Your task to perform on an android device: turn on the 24-hour format for clock Image 0: 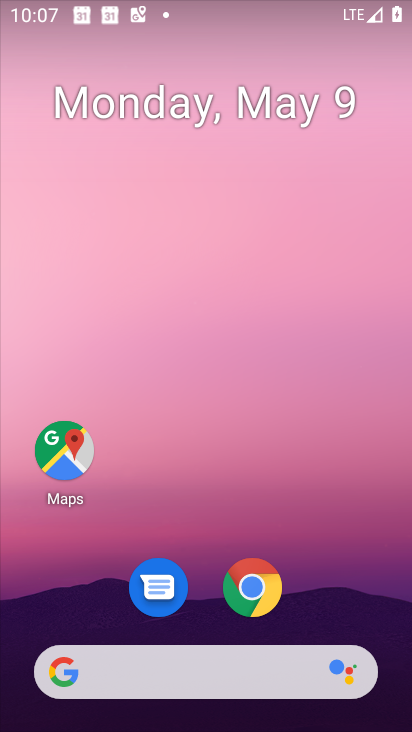
Step 0: drag from (201, 625) to (408, 99)
Your task to perform on an android device: turn on the 24-hour format for clock Image 1: 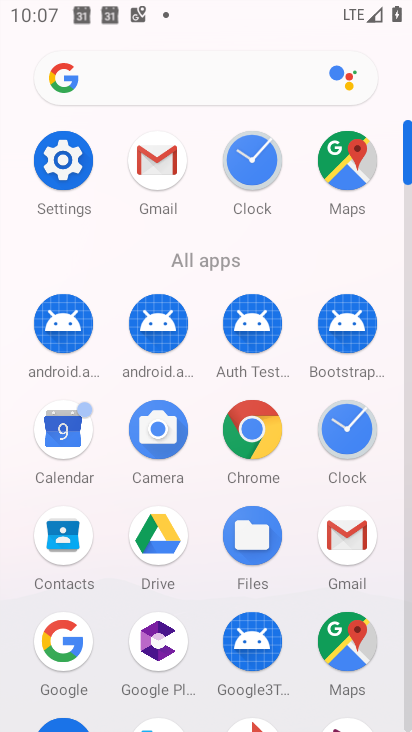
Step 1: click (241, 160)
Your task to perform on an android device: turn on the 24-hour format for clock Image 2: 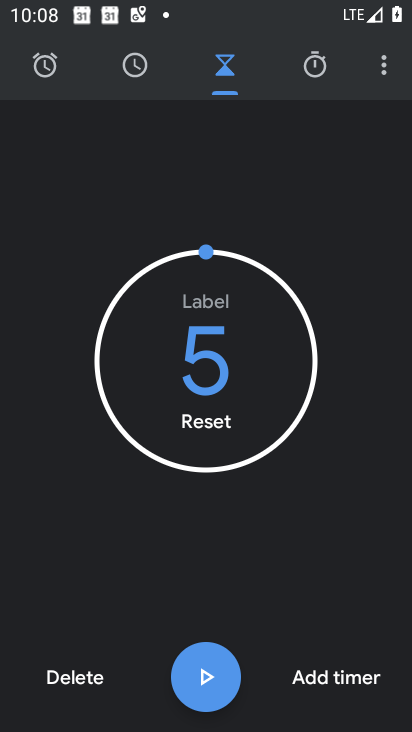
Step 2: click (375, 53)
Your task to perform on an android device: turn on the 24-hour format for clock Image 3: 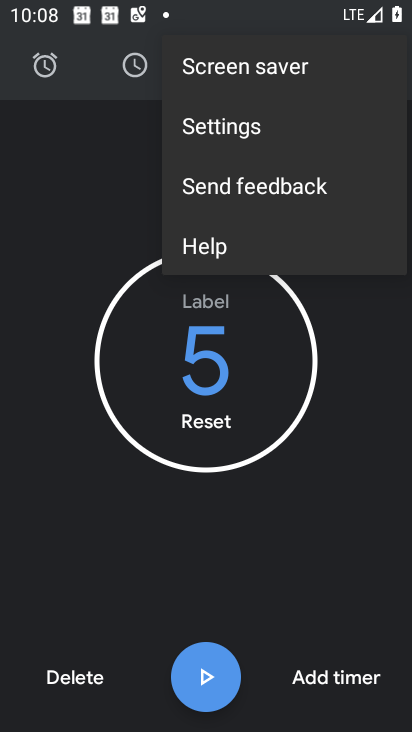
Step 3: click (278, 120)
Your task to perform on an android device: turn on the 24-hour format for clock Image 4: 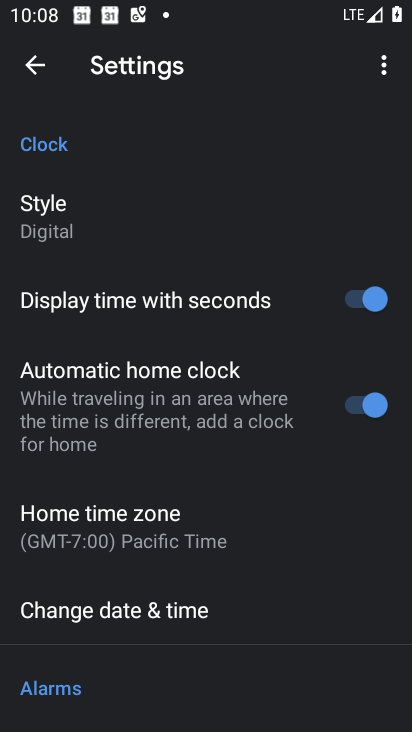
Step 4: drag from (142, 640) to (240, 115)
Your task to perform on an android device: turn on the 24-hour format for clock Image 5: 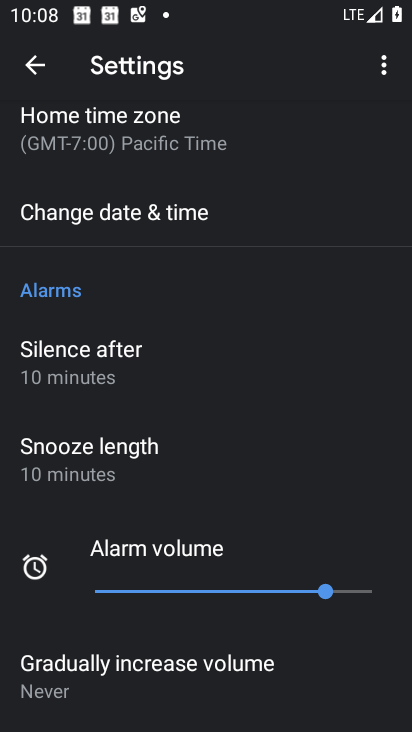
Step 5: drag from (111, 580) to (165, 187)
Your task to perform on an android device: turn on the 24-hour format for clock Image 6: 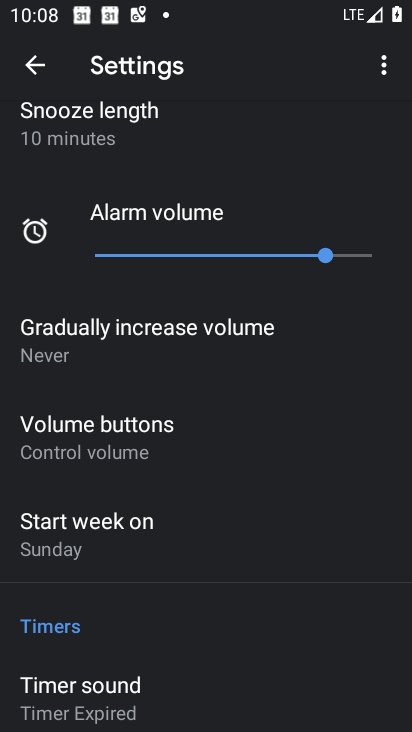
Step 6: drag from (260, 140) to (240, 628)
Your task to perform on an android device: turn on the 24-hour format for clock Image 7: 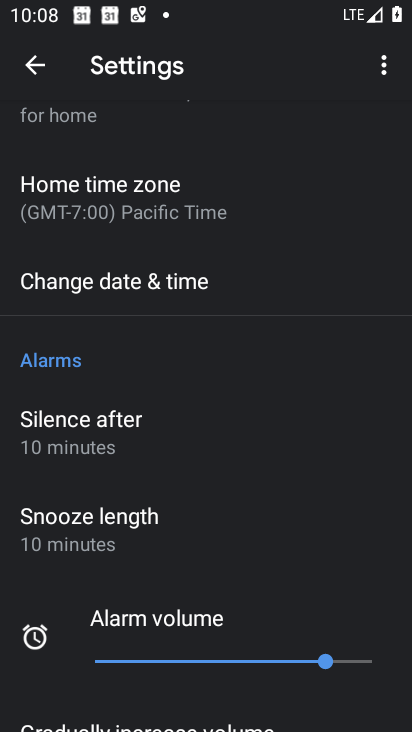
Step 7: click (226, 296)
Your task to perform on an android device: turn on the 24-hour format for clock Image 8: 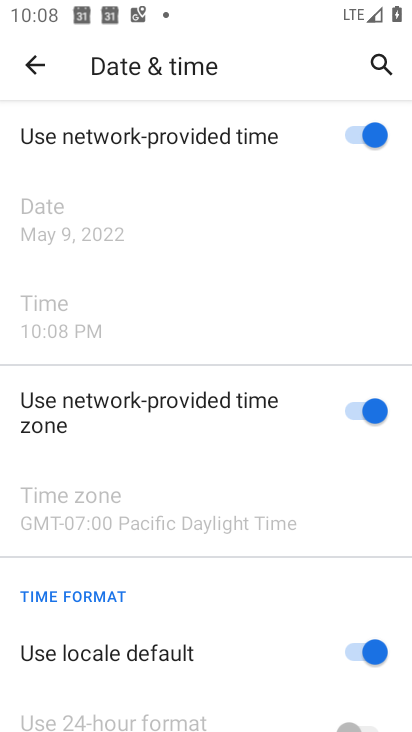
Step 8: click (374, 655)
Your task to perform on an android device: turn on the 24-hour format for clock Image 9: 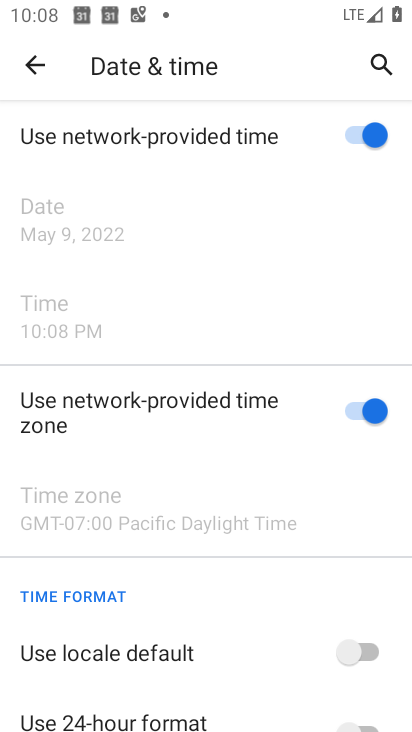
Step 9: drag from (227, 690) to (327, 284)
Your task to perform on an android device: turn on the 24-hour format for clock Image 10: 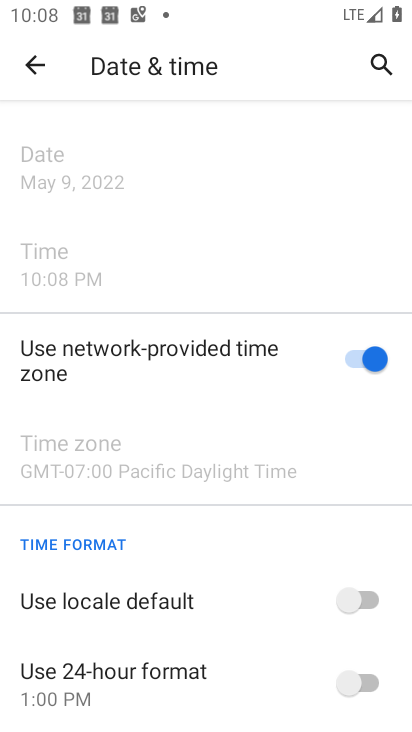
Step 10: click (360, 677)
Your task to perform on an android device: turn on the 24-hour format for clock Image 11: 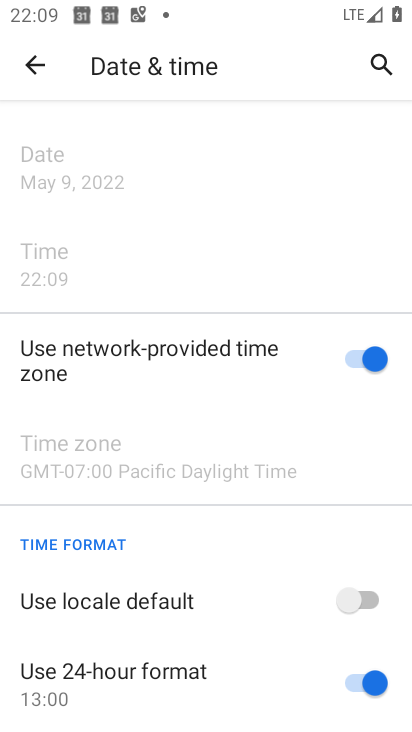
Step 11: task complete